Your task to perform on an android device: What is the news today? Image 0: 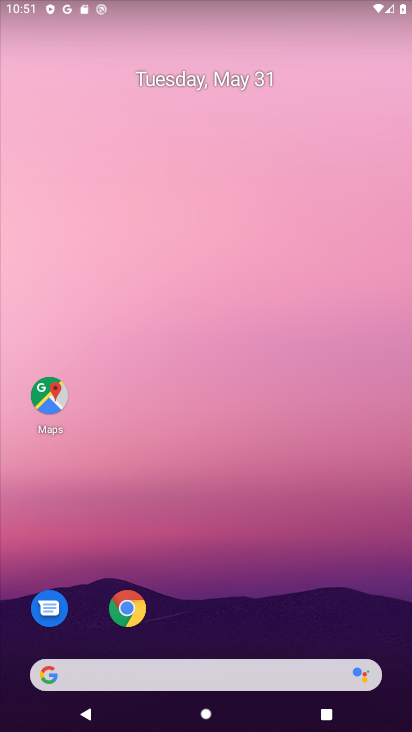
Step 0: click (123, 615)
Your task to perform on an android device: What is the news today? Image 1: 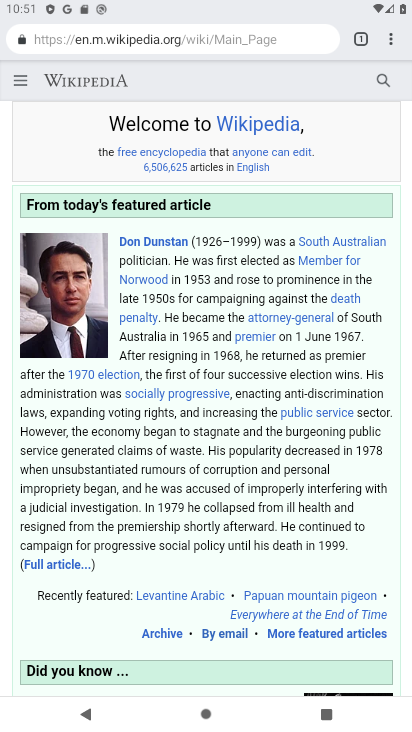
Step 1: click (310, 46)
Your task to perform on an android device: What is the news today? Image 2: 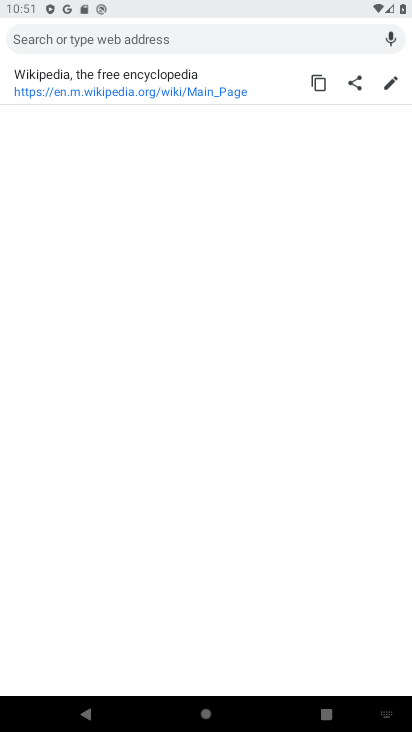
Step 2: type "What is the news today?"
Your task to perform on an android device: What is the news today? Image 3: 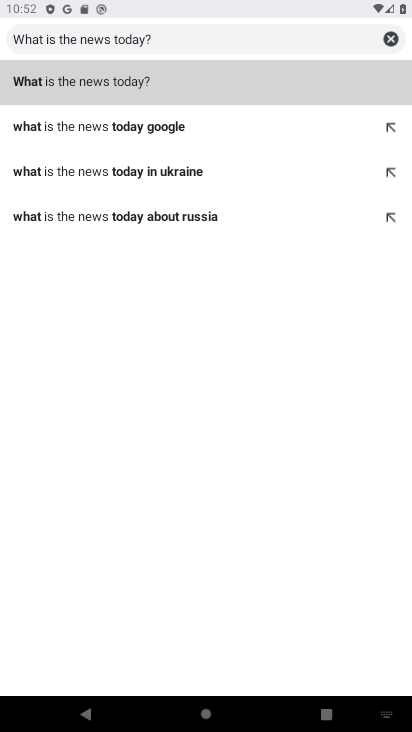
Step 3: click (121, 76)
Your task to perform on an android device: What is the news today? Image 4: 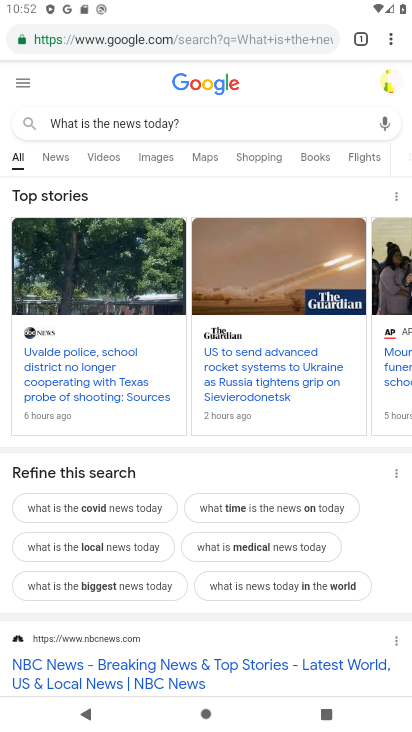
Step 4: task complete